Your task to perform on an android device: change the clock display to digital Image 0: 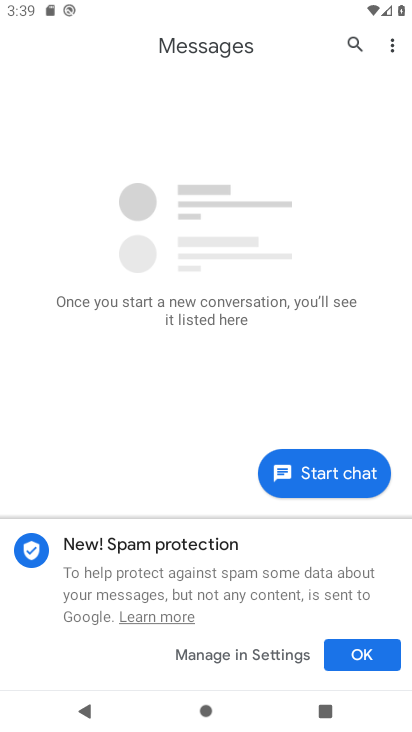
Step 0: press home button
Your task to perform on an android device: change the clock display to digital Image 1: 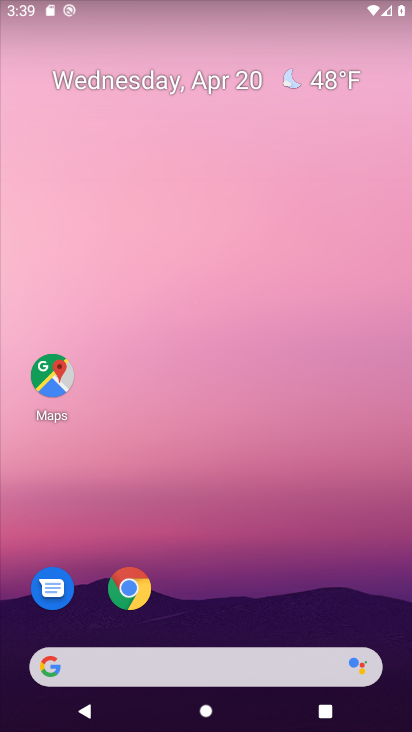
Step 1: drag from (351, 592) to (269, 126)
Your task to perform on an android device: change the clock display to digital Image 2: 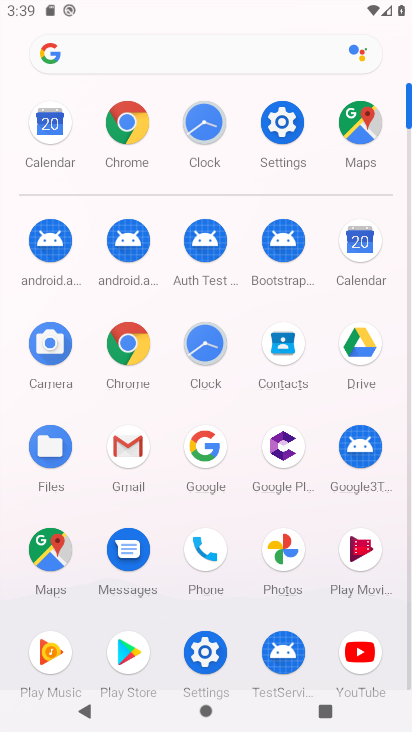
Step 2: click (209, 348)
Your task to perform on an android device: change the clock display to digital Image 3: 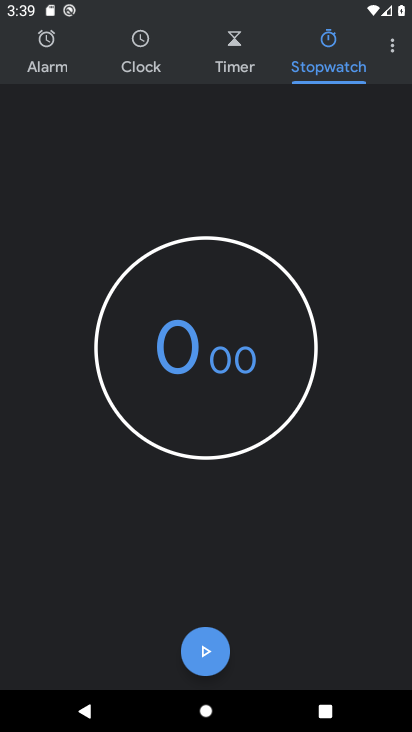
Step 3: click (393, 52)
Your task to perform on an android device: change the clock display to digital Image 4: 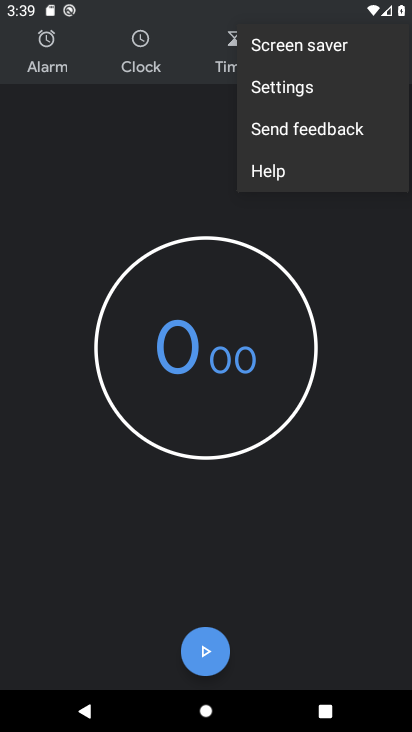
Step 4: click (298, 94)
Your task to perform on an android device: change the clock display to digital Image 5: 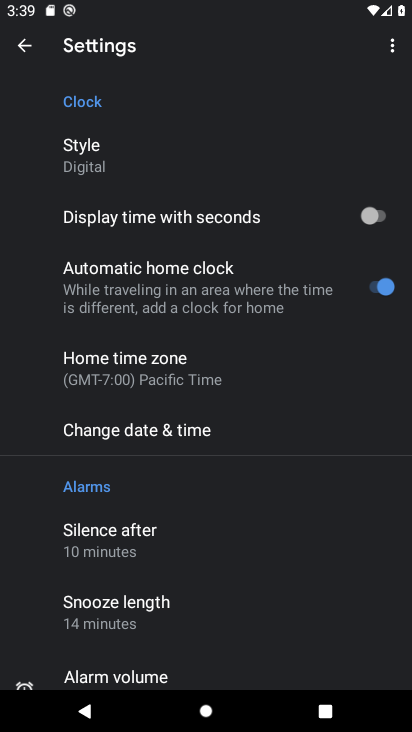
Step 5: task complete